Your task to perform on an android device: check data usage Image 0: 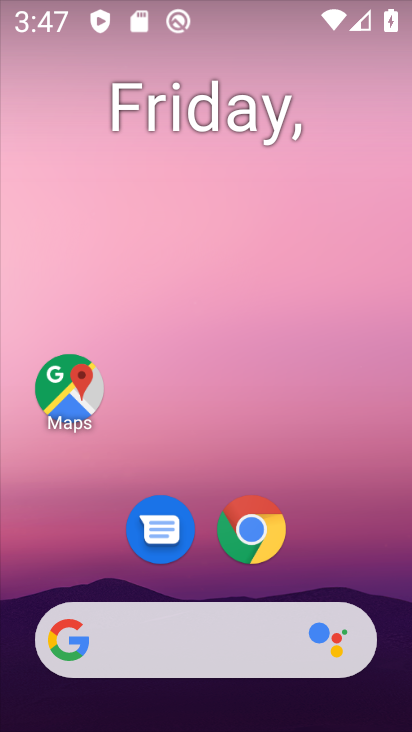
Step 0: drag from (49, 568) to (160, 128)
Your task to perform on an android device: check data usage Image 1: 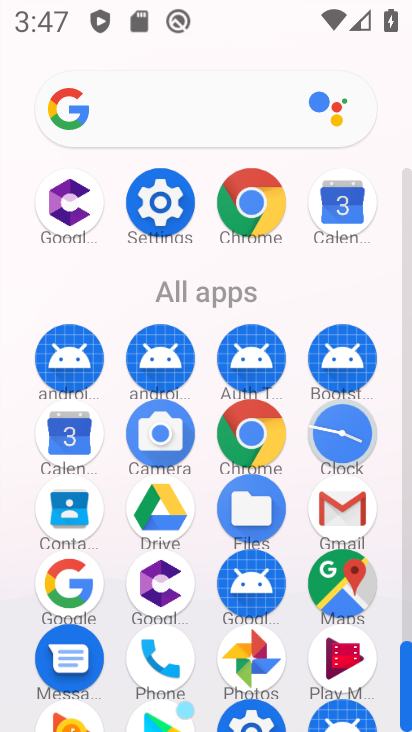
Step 1: drag from (188, 553) to (260, 277)
Your task to perform on an android device: check data usage Image 2: 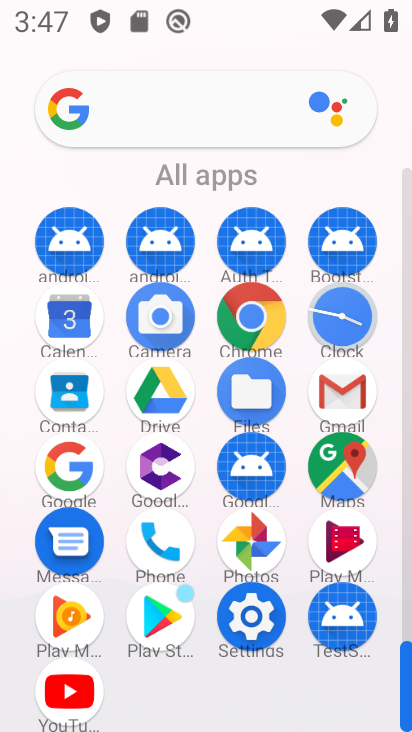
Step 2: click (250, 644)
Your task to perform on an android device: check data usage Image 3: 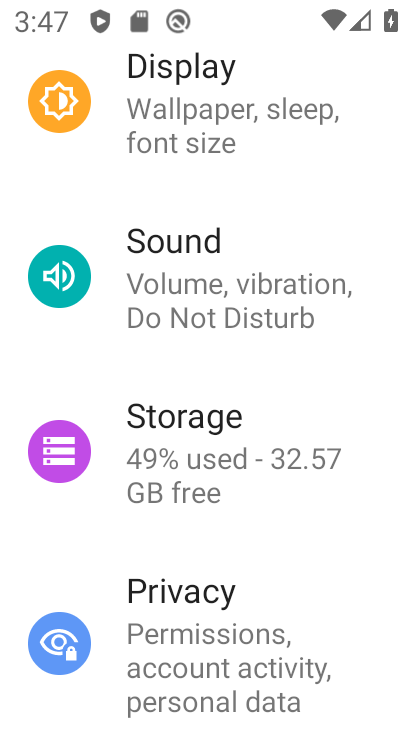
Step 3: drag from (292, 255) to (250, 567)
Your task to perform on an android device: check data usage Image 4: 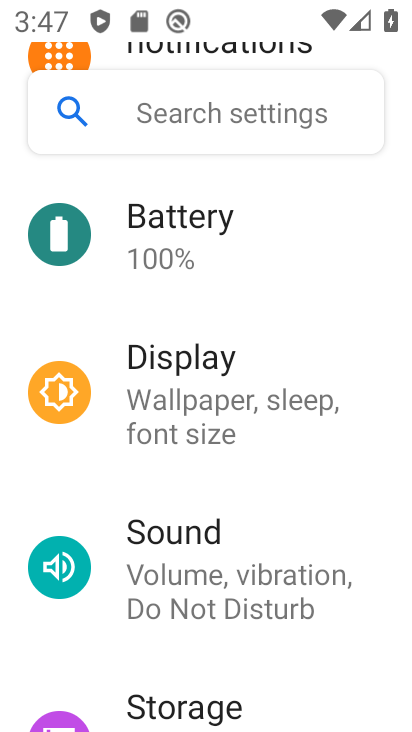
Step 4: drag from (275, 227) to (253, 573)
Your task to perform on an android device: check data usage Image 5: 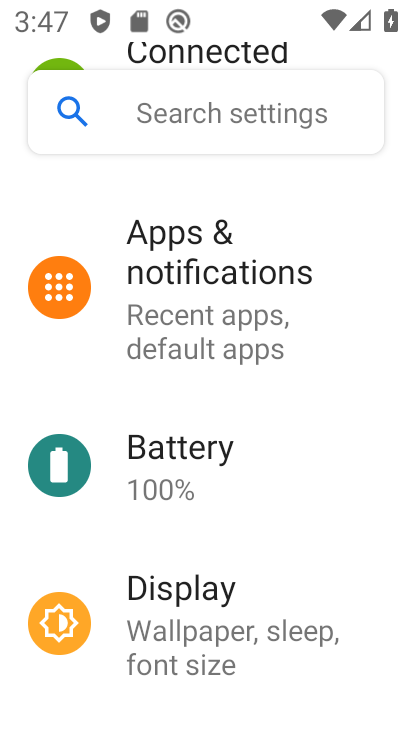
Step 5: drag from (285, 273) to (238, 575)
Your task to perform on an android device: check data usage Image 6: 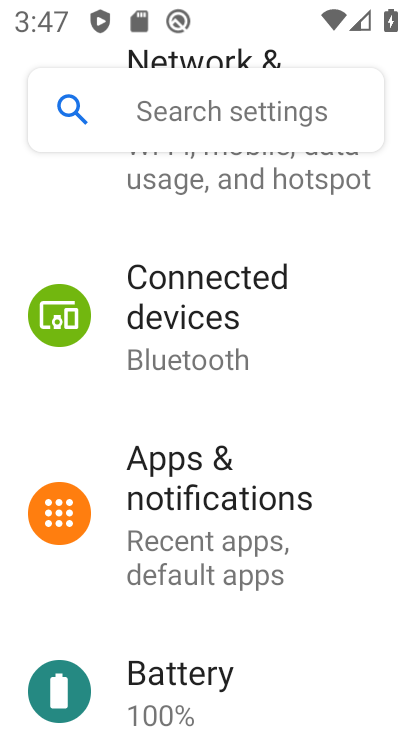
Step 6: drag from (266, 338) to (235, 626)
Your task to perform on an android device: check data usage Image 7: 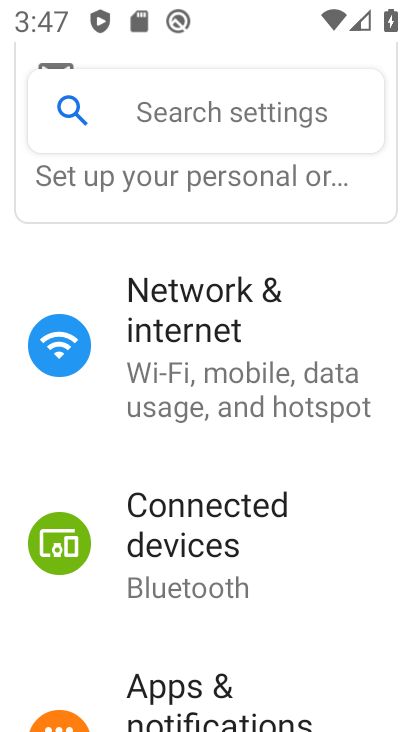
Step 7: click (313, 387)
Your task to perform on an android device: check data usage Image 8: 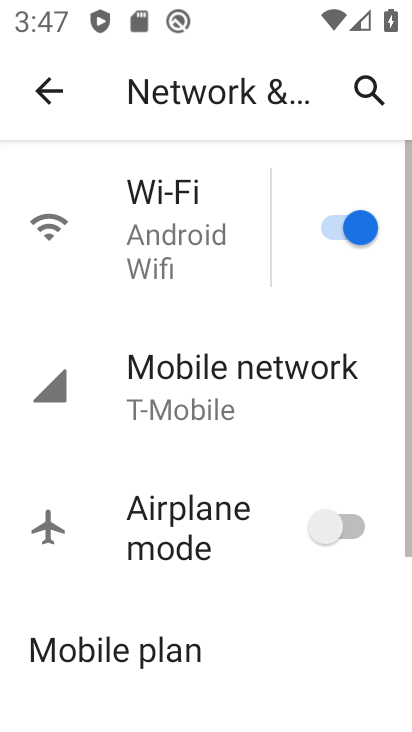
Step 8: drag from (200, 495) to (315, 162)
Your task to perform on an android device: check data usage Image 9: 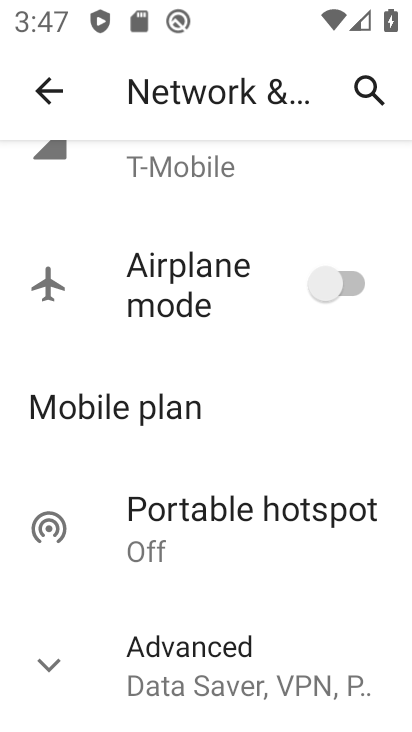
Step 9: click (225, 170)
Your task to perform on an android device: check data usage Image 10: 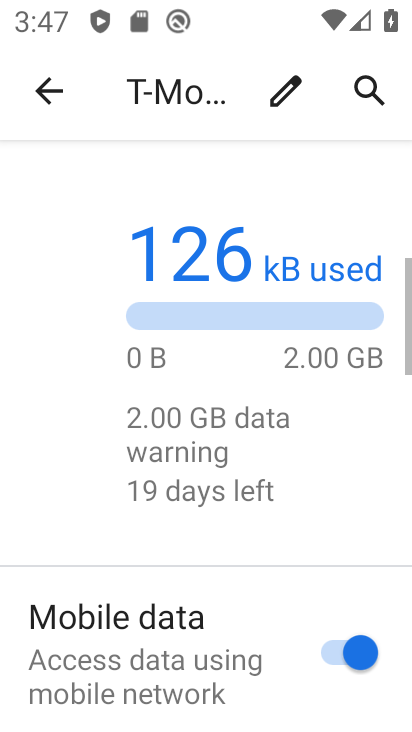
Step 10: drag from (151, 526) to (322, 205)
Your task to perform on an android device: check data usage Image 11: 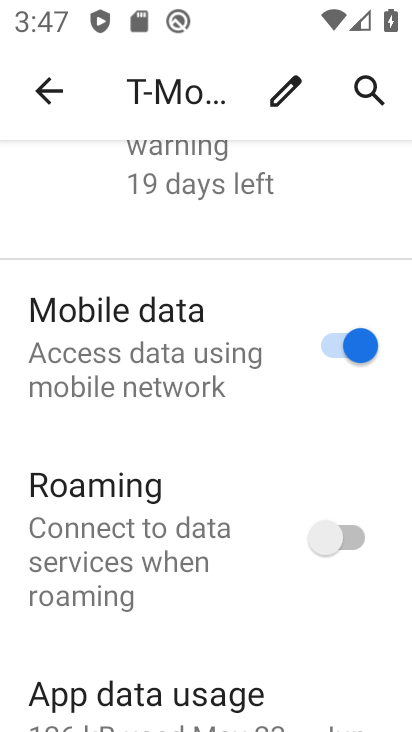
Step 11: drag from (180, 564) to (279, 207)
Your task to perform on an android device: check data usage Image 12: 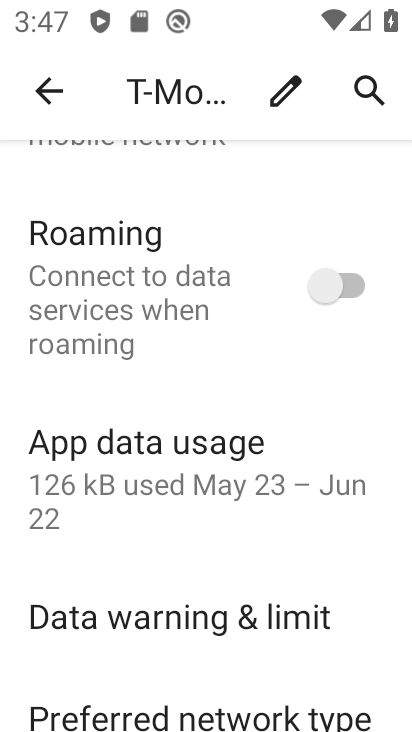
Step 12: click (195, 519)
Your task to perform on an android device: check data usage Image 13: 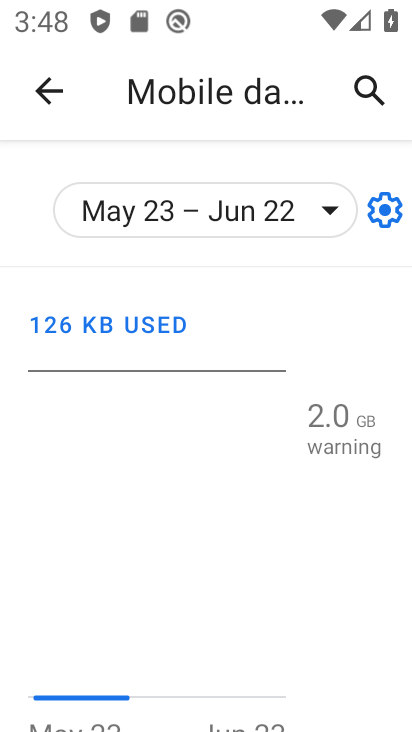
Step 13: task complete